Your task to perform on an android device: Open calendar and show me the first week of next month Image 0: 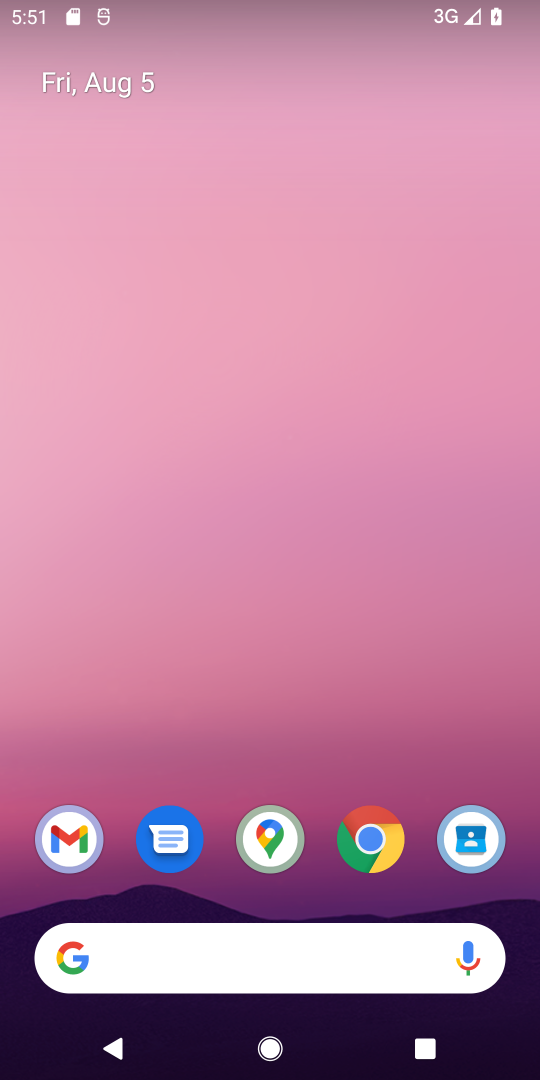
Step 0: drag from (298, 761) to (283, 124)
Your task to perform on an android device: Open calendar and show me the first week of next month Image 1: 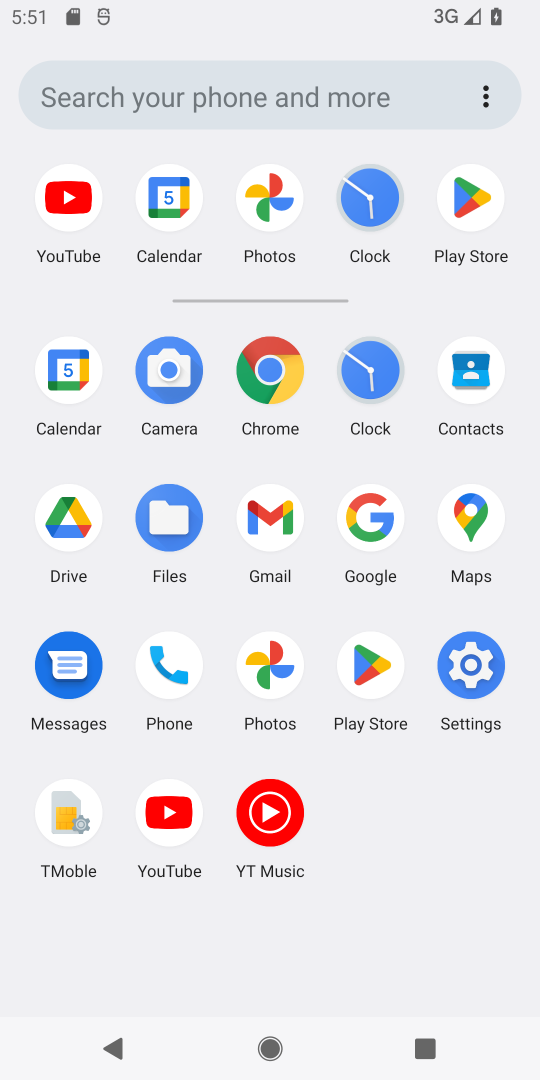
Step 1: click (182, 224)
Your task to perform on an android device: Open calendar and show me the first week of next month Image 2: 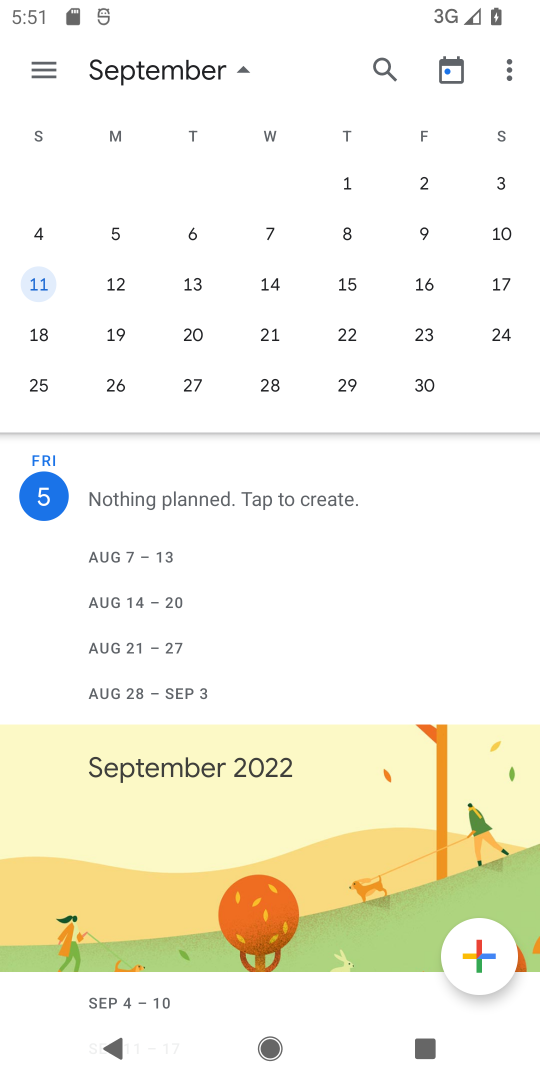
Step 2: click (348, 194)
Your task to perform on an android device: Open calendar and show me the first week of next month Image 3: 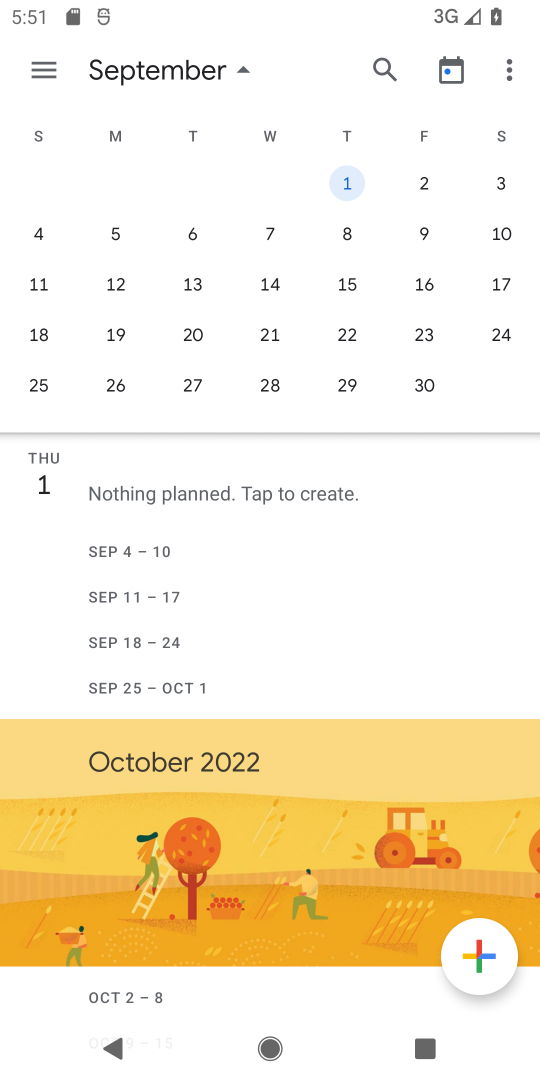
Step 3: click (416, 199)
Your task to perform on an android device: Open calendar and show me the first week of next month Image 4: 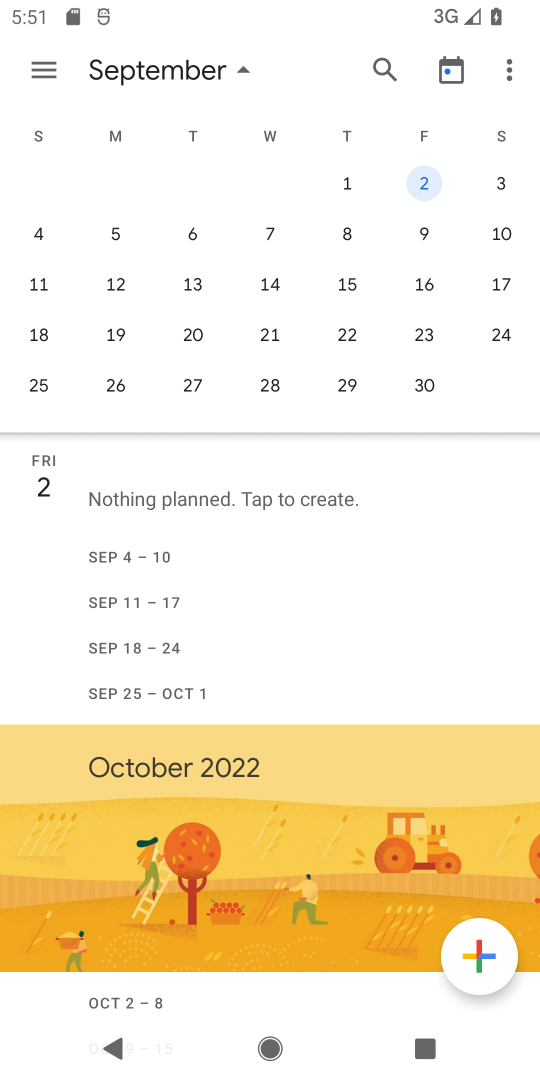
Step 4: task complete